Your task to perform on an android device: Open calendar and show me the first week of next month Image 0: 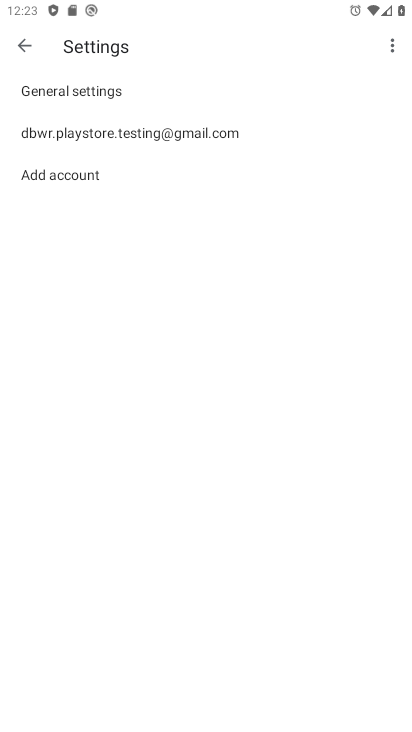
Step 0: press home button
Your task to perform on an android device: Open calendar and show me the first week of next month Image 1: 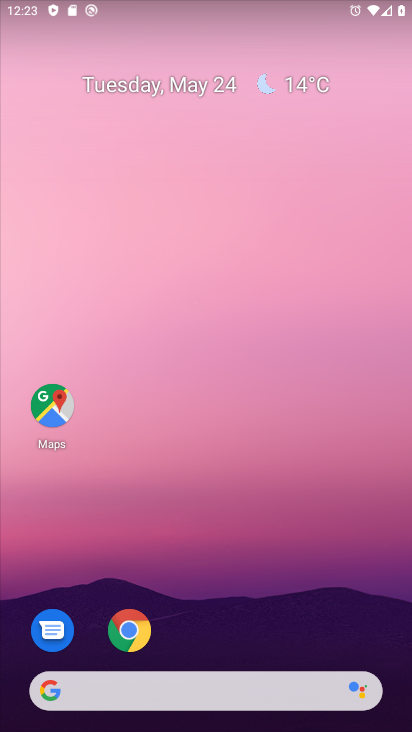
Step 1: drag from (298, 574) to (325, 130)
Your task to perform on an android device: Open calendar and show me the first week of next month Image 2: 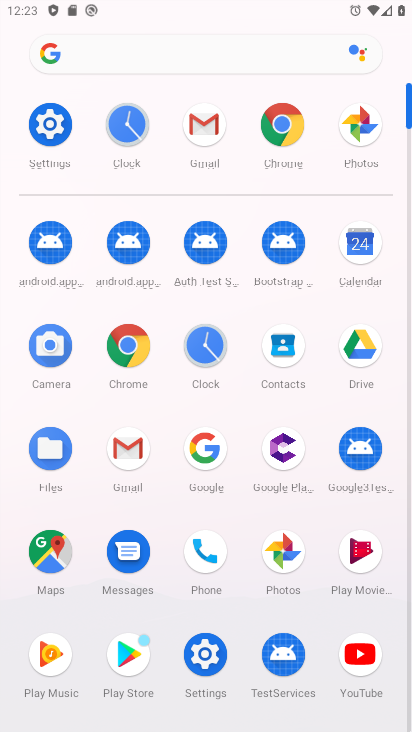
Step 2: click (353, 253)
Your task to perform on an android device: Open calendar and show me the first week of next month Image 3: 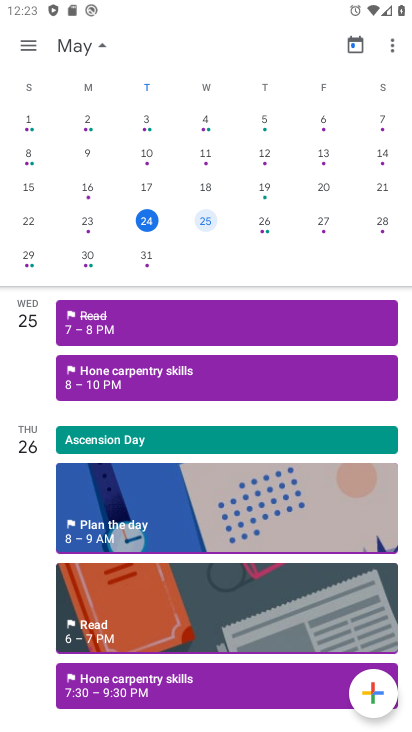
Step 3: drag from (329, 178) to (15, 186)
Your task to perform on an android device: Open calendar and show me the first week of next month Image 4: 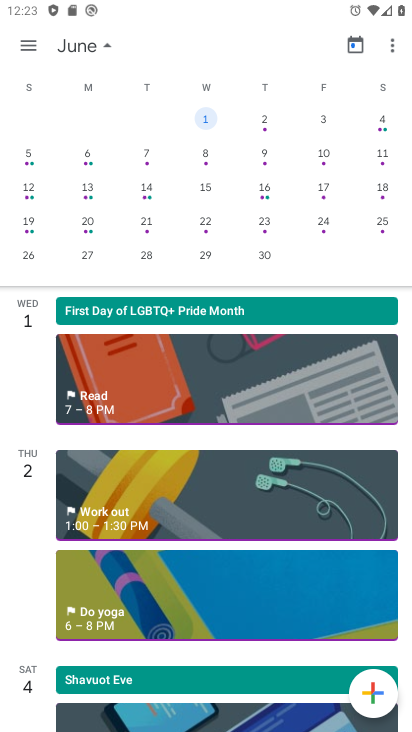
Step 4: click (203, 126)
Your task to perform on an android device: Open calendar and show me the first week of next month Image 5: 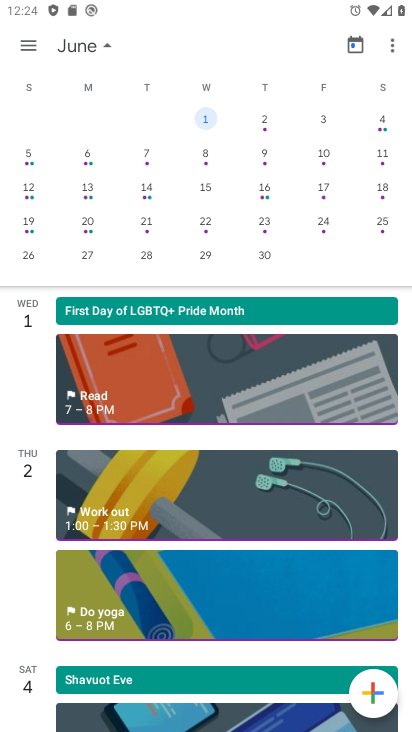
Step 5: task complete